Your task to perform on an android device: Search for sushi restaurants on Maps Image 0: 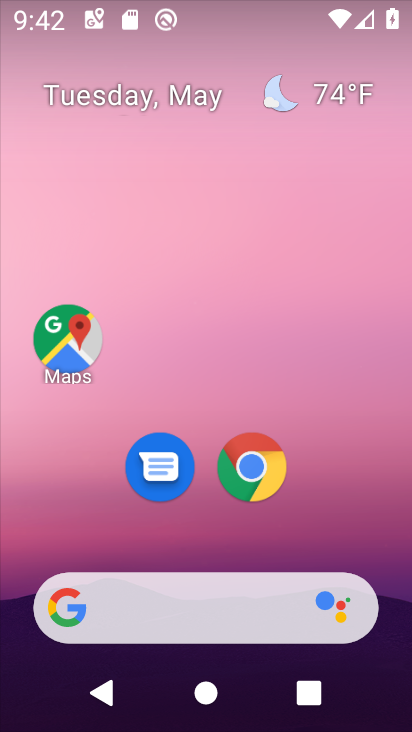
Step 0: drag from (364, 460) to (364, 203)
Your task to perform on an android device: Search for sushi restaurants on Maps Image 1: 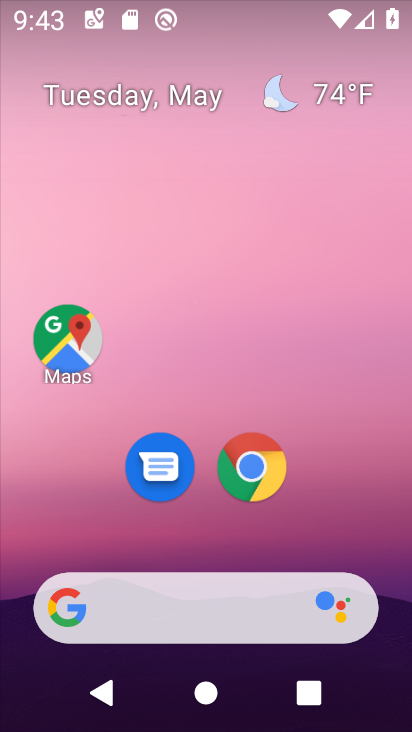
Step 1: click (248, 494)
Your task to perform on an android device: Search for sushi restaurants on Maps Image 2: 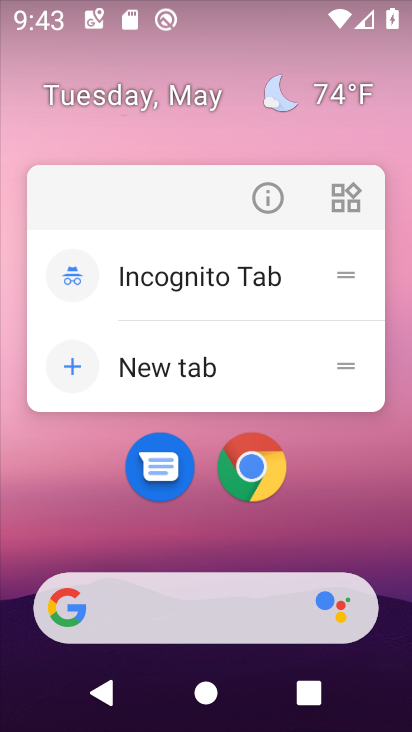
Step 2: drag from (311, 502) to (305, 97)
Your task to perform on an android device: Search for sushi restaurants on Maps Image 3: 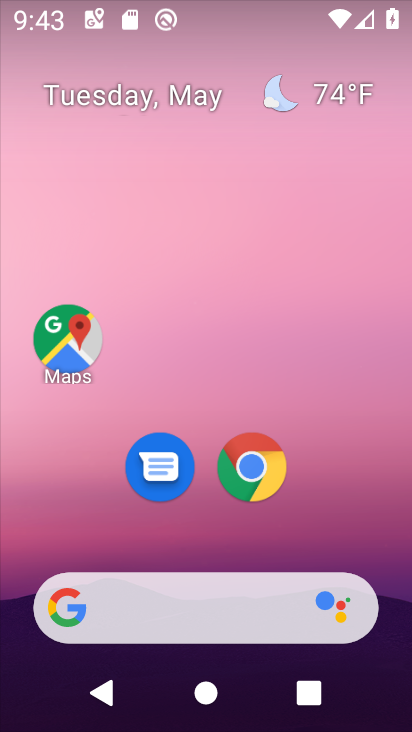
Step 3: drag from (330, 513) to (370, 117)
Your task to perform on an android device: Search for sushi restaurants on Maps Image 4: 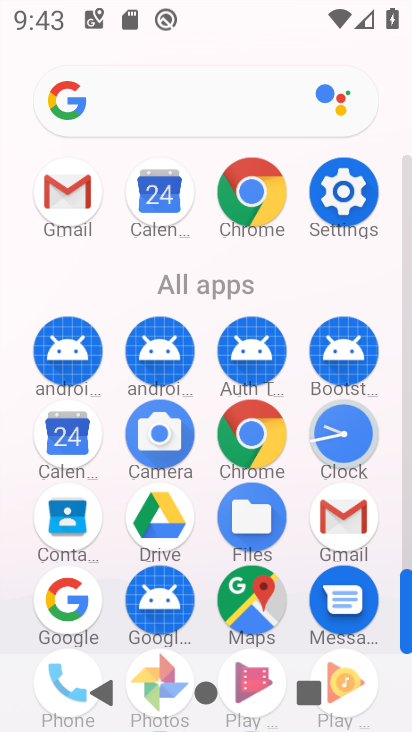
Step 4: click (255, 605)
Your task to perform on an android device: Search for sushi restaurants on Maps Image 5: 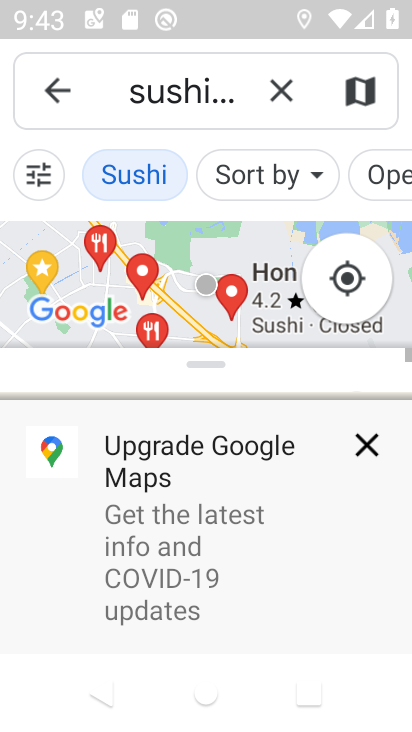
Step 5: click (370, 443)
Your task to perform on an android device: Search for sushi restaurants on Maps Image 6: 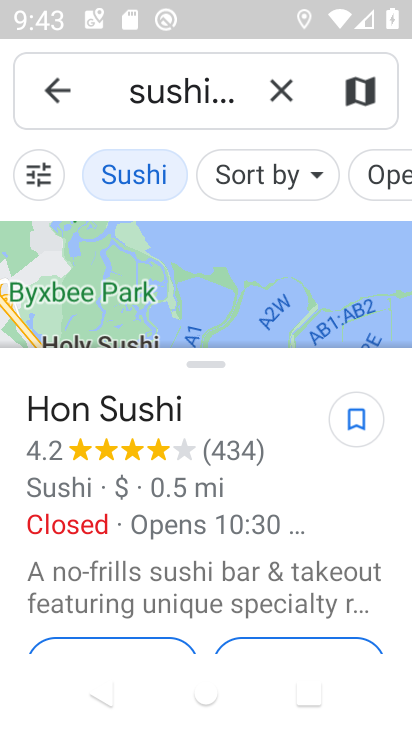
Step 6: click (276, 95)
Your task to perform on an android device: Search for sushi restaurants on Maps Image 7: 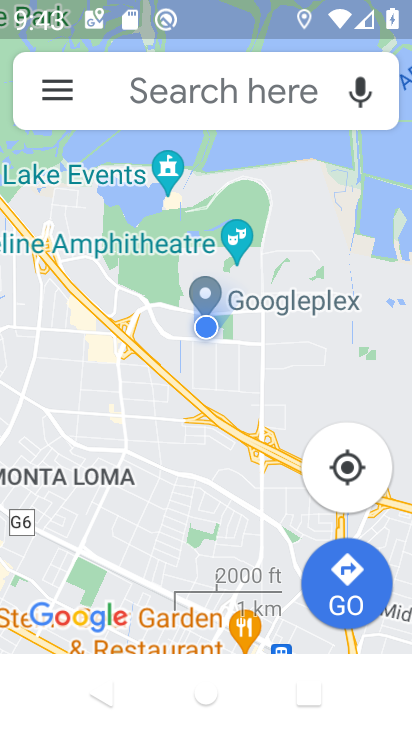
Step 7: click (197, 83)
Your task to perform on an android device: Search for sushi restaurants on Maps Image 8: 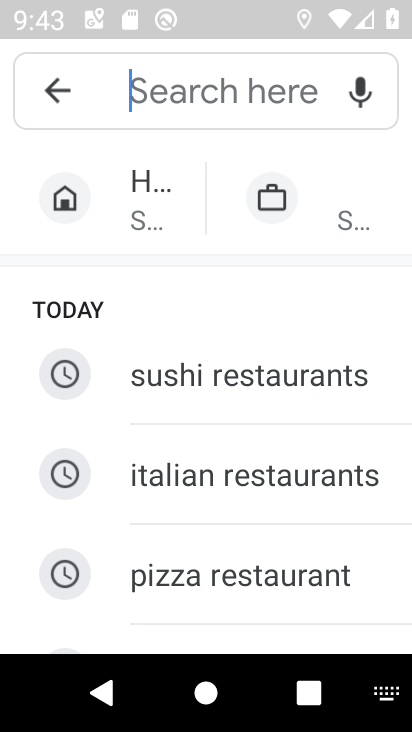
Step 8: click (254, 390)
Your task to perform on an android device: Search for sushi restaurants on Maps Image 9: 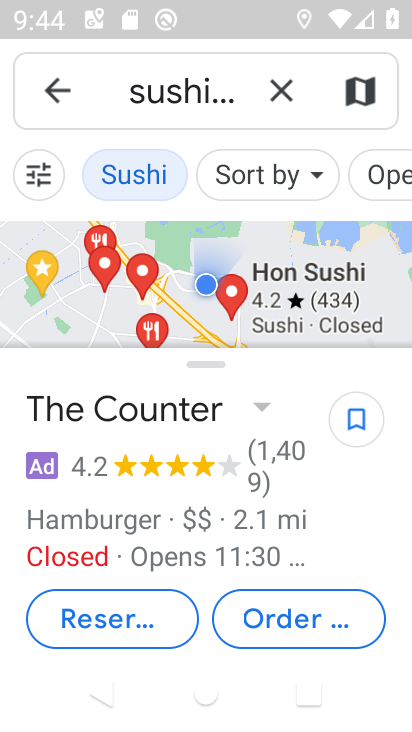
Step 9: task complete